Your task to perform on an android device: Open Google Chrome and open the bookmarks view Image 0: 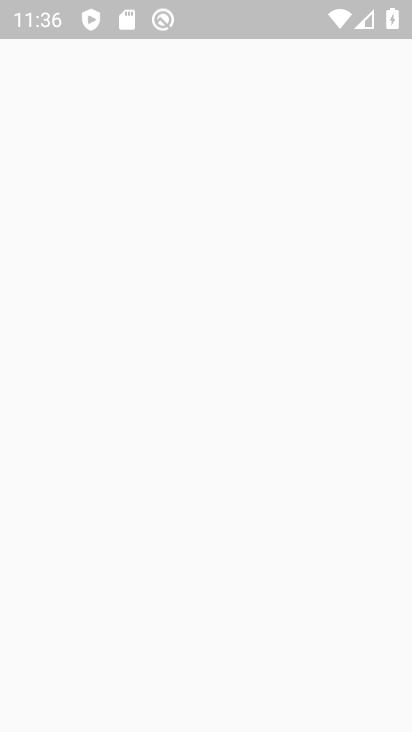
Step 0: press home button
Your task to perform on an android device: Open Google Chrome and open the bookmarks view Image 1: 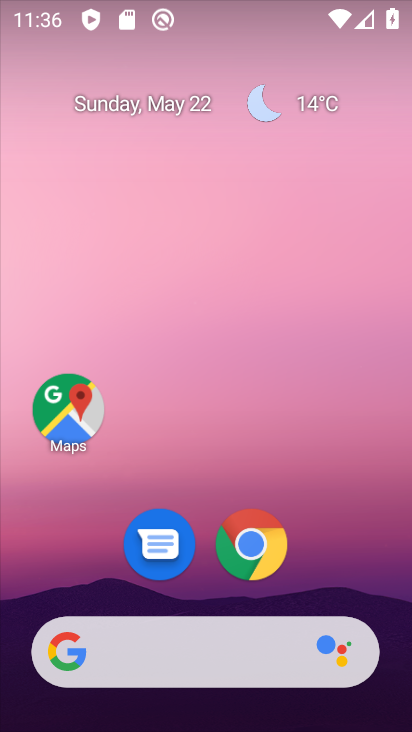
Step 1: click (273, 547)
Your task to perform on an android device: Open Google Chrome and open the bookmarks view Image 2: 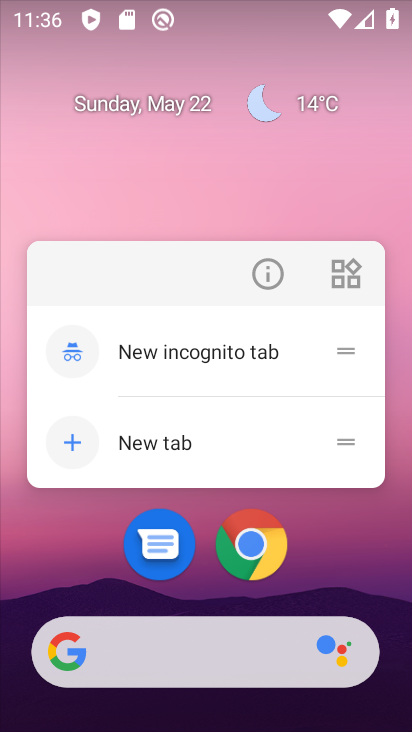
Step 2: click (257, 550)
Your task to perform on an android device: Open Google Chrome and open the bookmarks view Image 3: 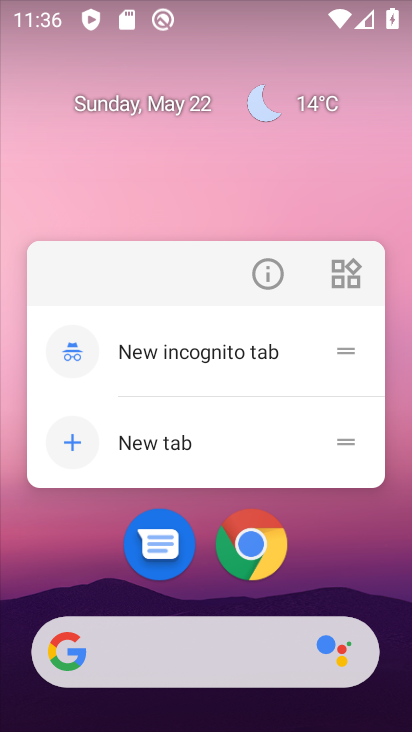
Step 3: click (329, 559)
Your task to perform on an android device: Open Google Chrome and open the bookmarks view Image 4: 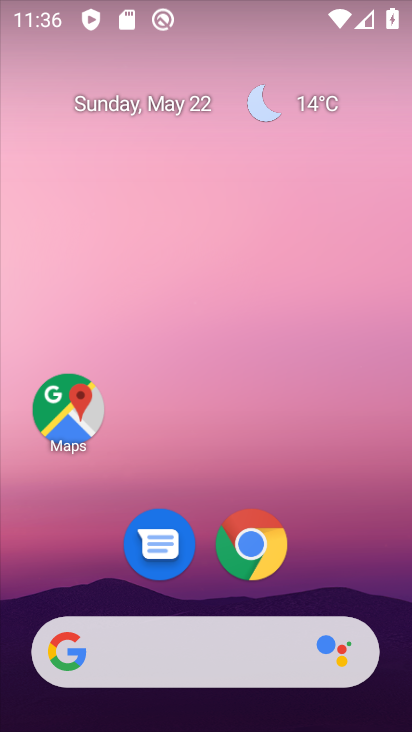
Step 4: drag from (339, 575) to (332, 95)
Your task to perform on an android device: Open Google Chrome and open the bookmarks view Image 5: 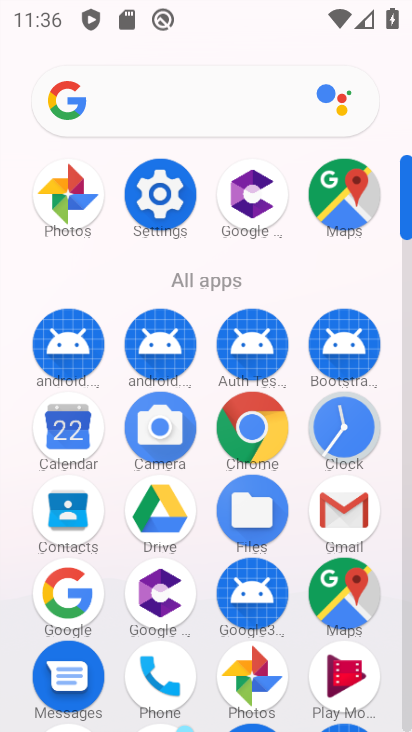
Step 5: click (257, 437)
Your task to perform on an android device: Open Google Chrome and open the bookmarks view Image 6: 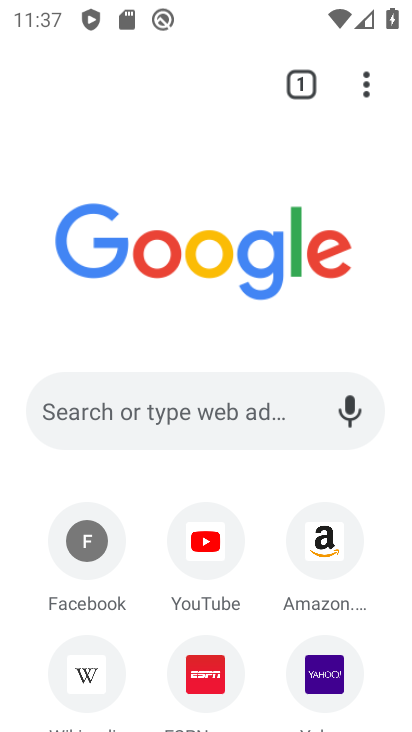
Step 6: task complete